Your task to perform on an android device: Open calendar and show me the first week of next month Image 0: 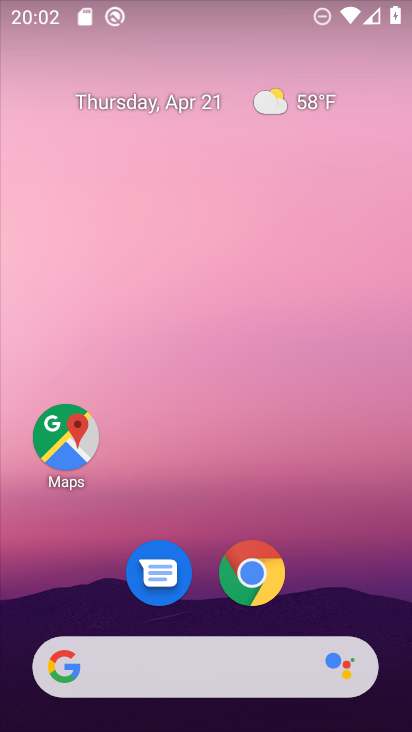
Step 0: drag from (197, 601) to (231, 274)
Your task to perform on an android device: Open calendar and show me the first week of next month Image 1: 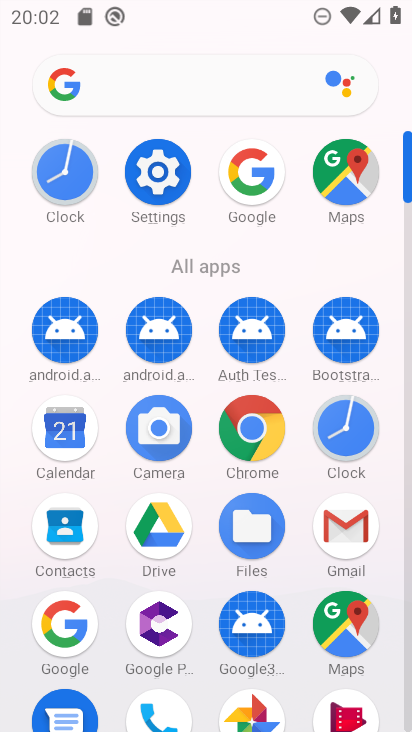
Step 1: click (71, 426)
Your task to perform on an android device: Open calendar and show me the first week of next month Image 2: 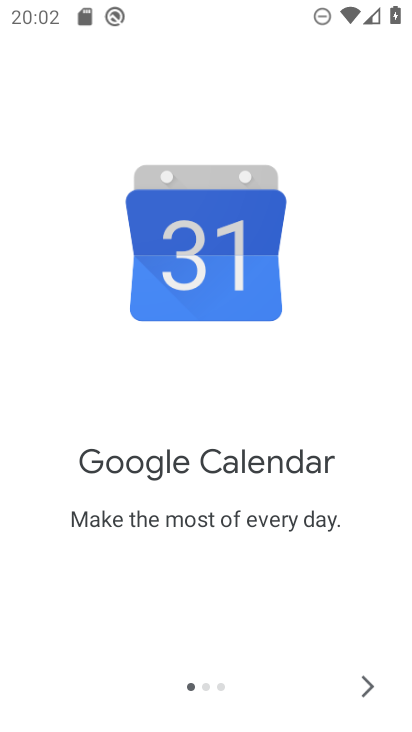
Step 2: click (360, 671)
Your task to perform on an android device: Open calendar and show me the first week of next month Image 3: 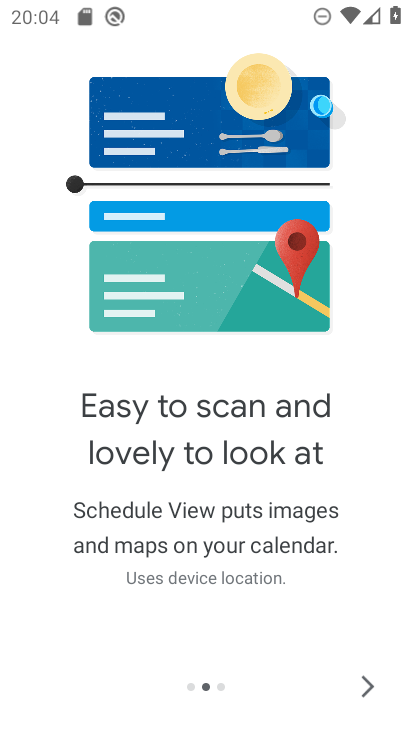
Step 3: click (359, 681)
Your task to perform on an android device: Open calendar and show me the first week of next month Image 4: 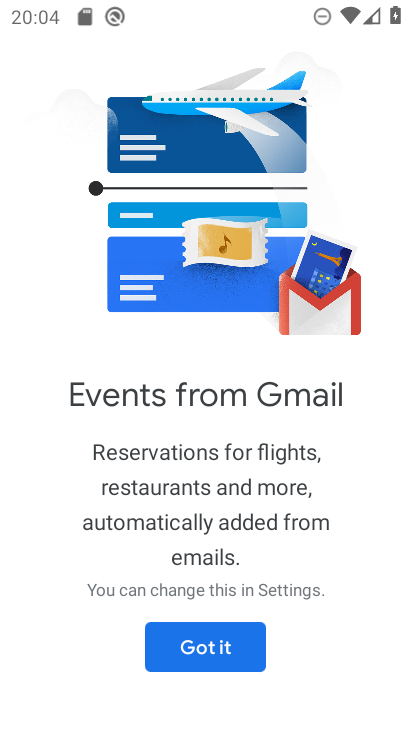
Step 4: click (197, 651)
Your task to perform on an android device: Open calendar and show me the first week of next month Image 5: 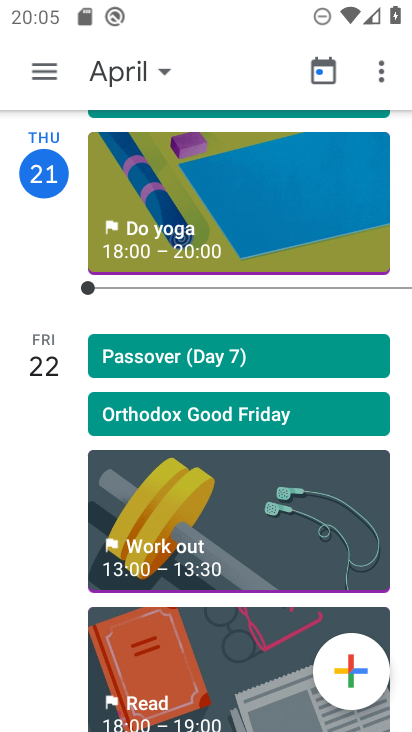
Step 5: click (118, 75)
Your task to perform on an android device: Open calendar and show me the first week of next month Image 6: 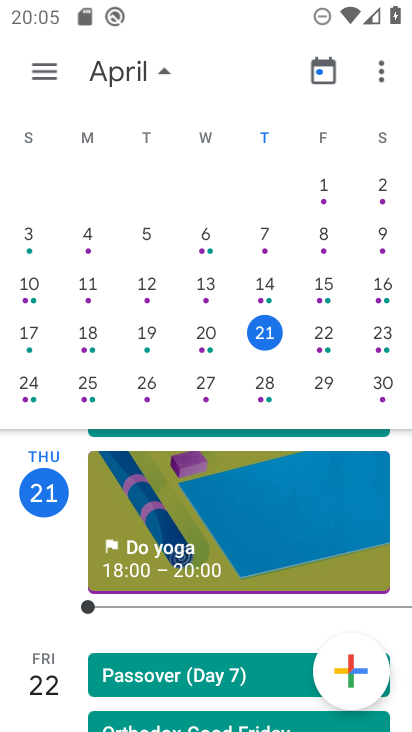
Step 6: click (10, 310)
Your task to perform on an android device: Open calendar and show me the first week of next month Image 7: 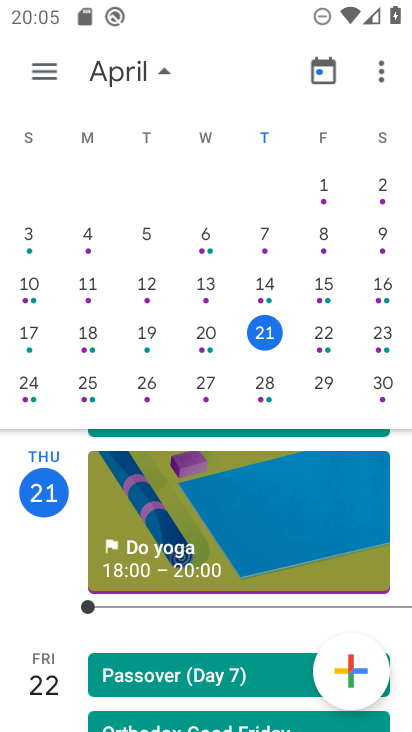
Step 7: drag from (396, 311) to (28, 375)
Your task to perform on an android device: Open calendar and show me the first week of next month Image 8: 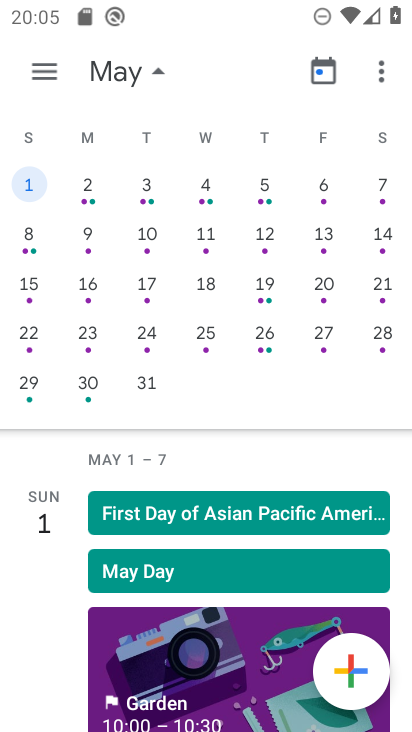
Step 8: click (35, 340)
Your task to perform on an android device: Open calendar and show me the first week of next month Image 9: 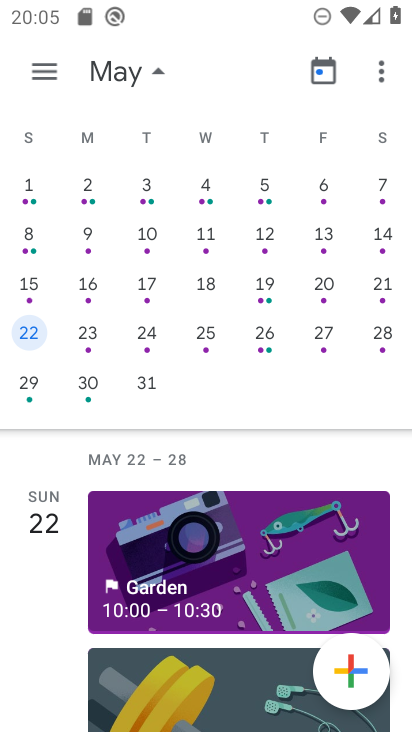
Step 9: click (35, 196)
Your task to perform on an android device: Open calendar and show me the first week of next month Image 10: 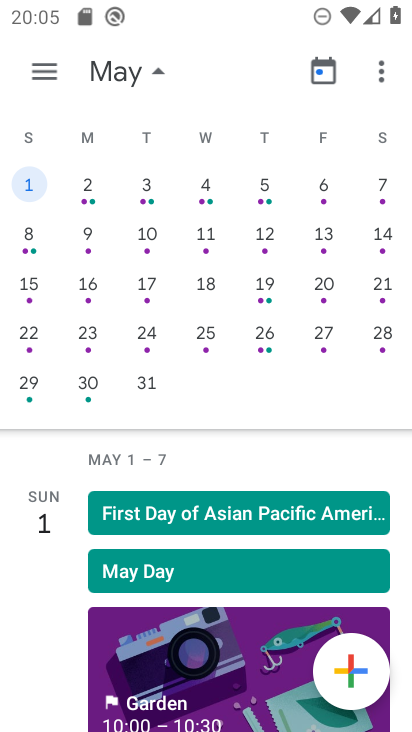
Step 10: task complete